Your task to perform on an android device: Open calendar and show me the second week of next month Image 0: 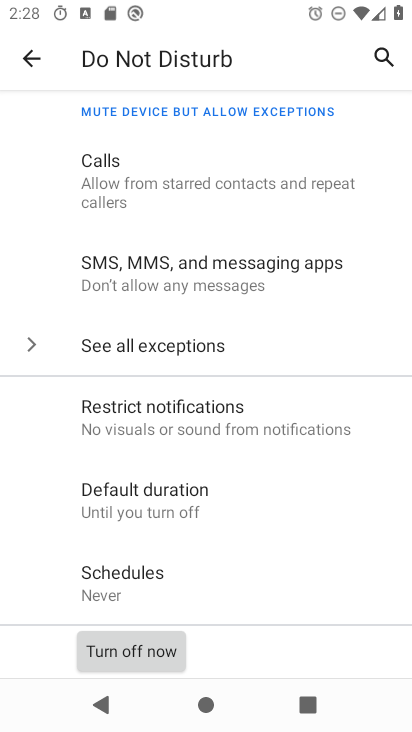
Step 0: press home button
Your task to perform on an android device: Open calendar and show me the second week of next month Image 1: 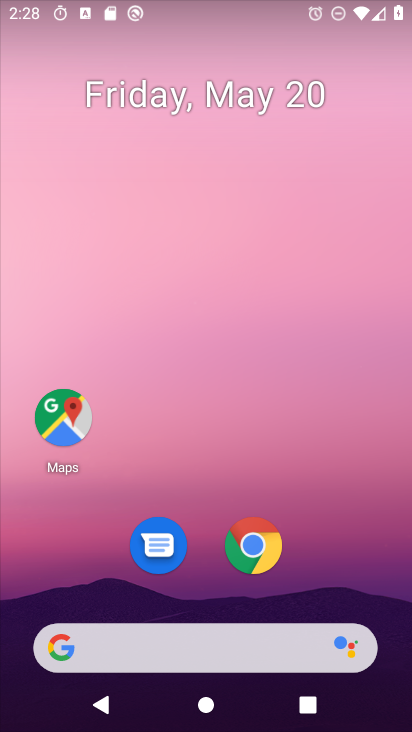
Step 1: drag from (323, 656) to (361, 34)
Your task to perform on an android device: Open calendar and show me the second week of next month Image 2: 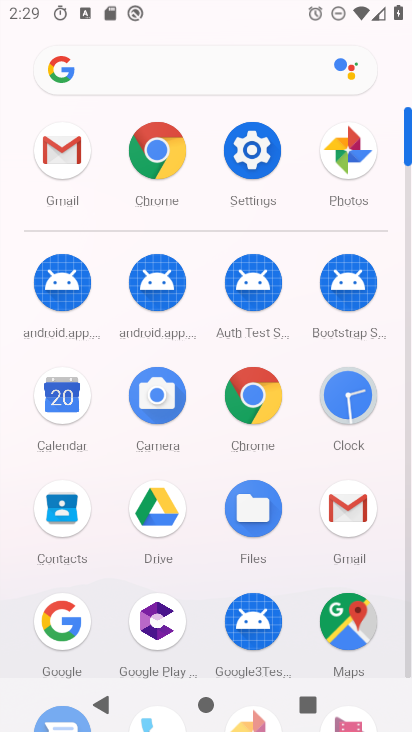
Step 2: click (65, 403)
Your task to perform on an android device: Open calendar and show me the second week of next month Image 3: 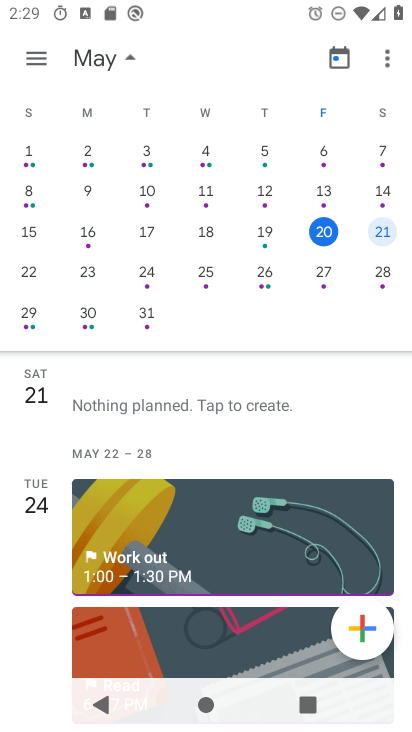
Step 3: drag from (373, 203) to (95, 183)
Your task to perform on an android device: Open calendar and show me the second week of next month Image 4: 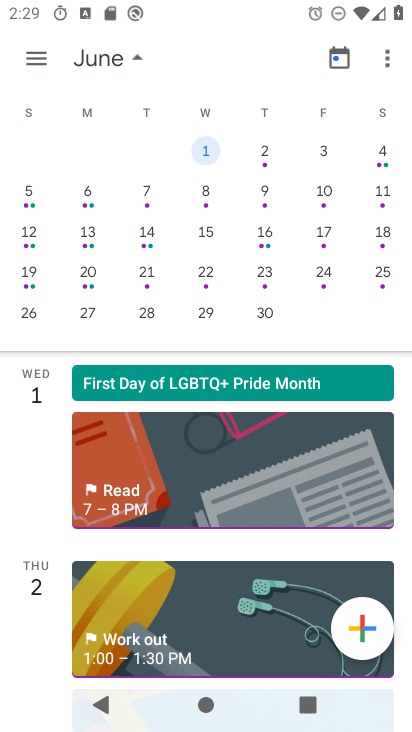
Step 4: click (327, 191)
Your task to perform on an android device: Open calendar and show me the second week of next month Image 5: 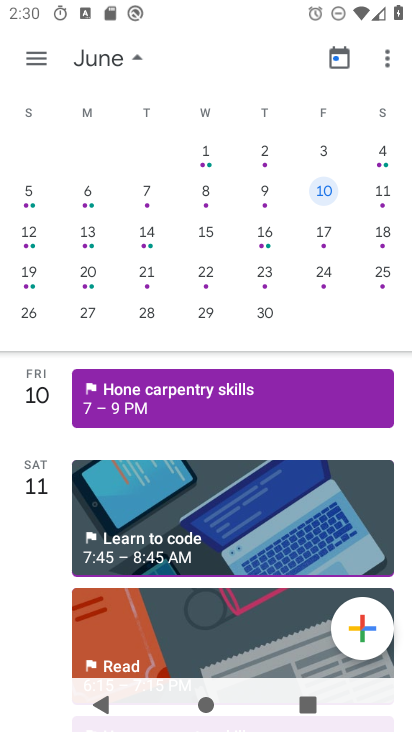
Step 5: click (37, 49)
Your task to perform on an android device: Open calendar and show me the second week of next month Image 6: 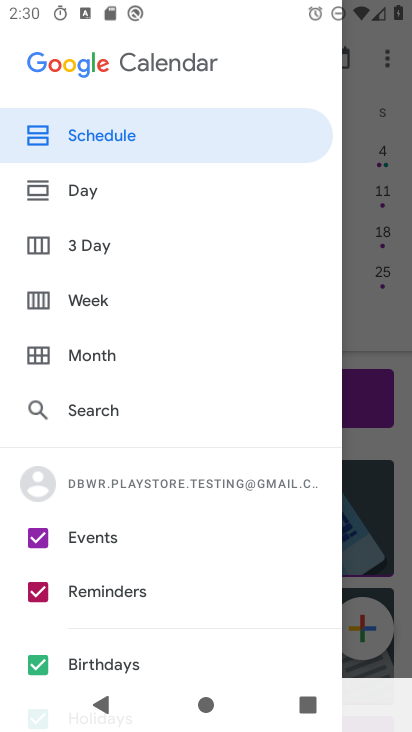
Step 6: click (83, 301)
Your task to perform on an android device: Open calendar and show me the second week of next month Image 7: 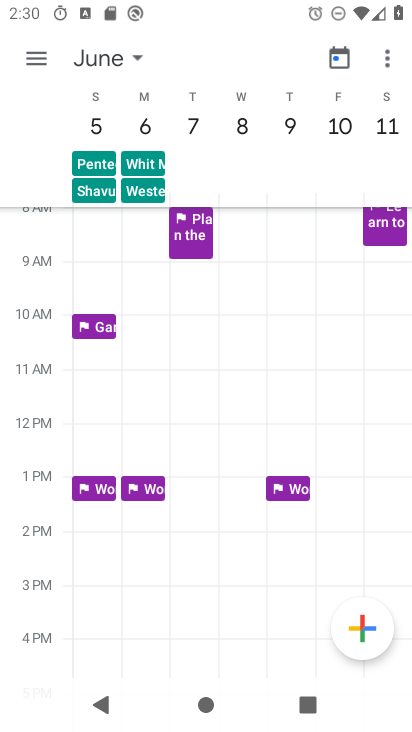
Step 7: task complete